Your task to perform on an android device: clear history in the chrome app Image 0: 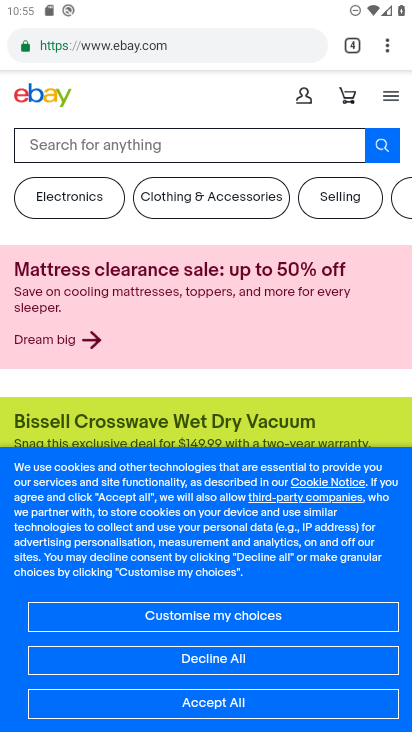
Step 0: press home button
Your task to perform on an android device: clear history in the chrome app Image 1: 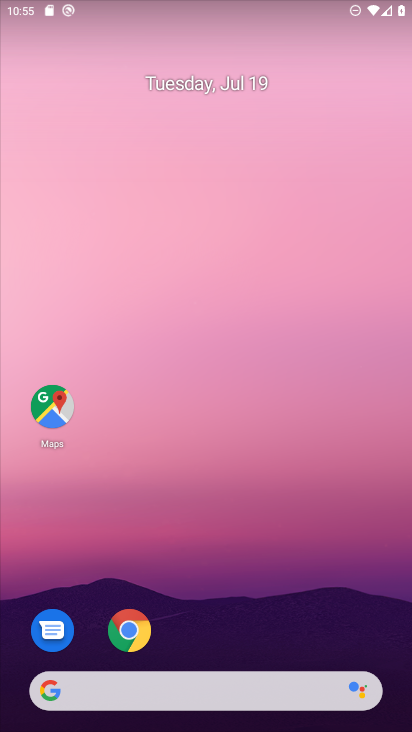
Step 1: click (137, 630)
Your task to perform on an android device: clear history in the chrome app Image 2: 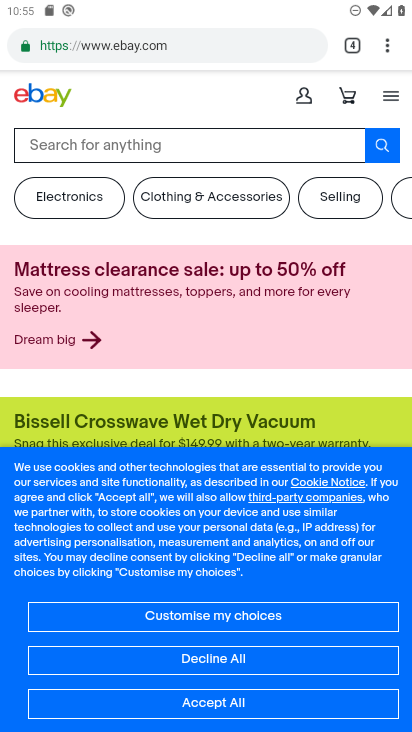
Step 2: click (384, 37)
Your task to perform on an android device: clear history in the chrome app Image 3: 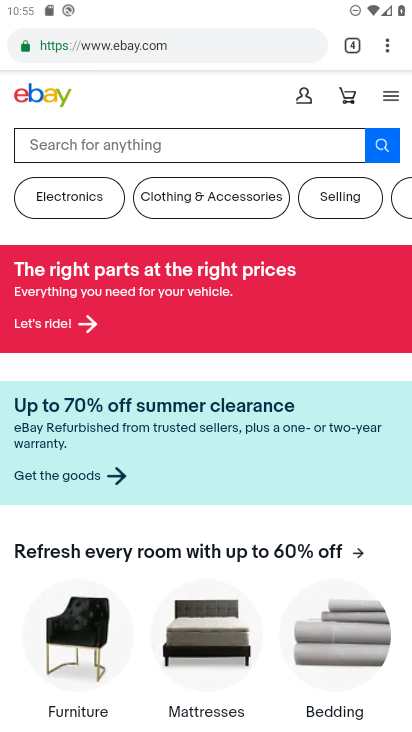
Step 3: drag from (389, 49) to (235, 254)
Your task to perform on an android device: clear history in the chrome app Image 4: 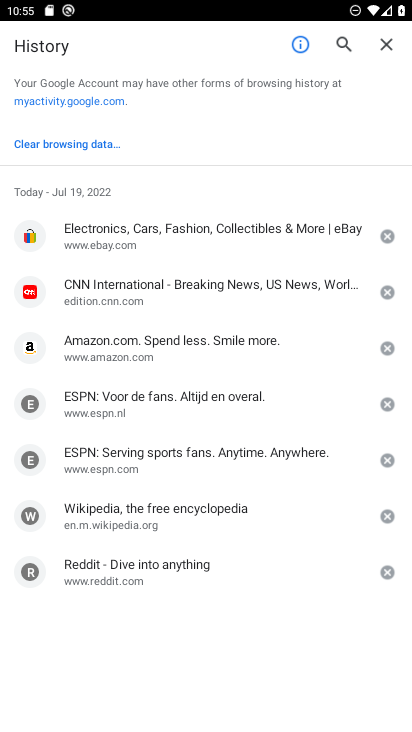
Step 4: click (49, 142)
Your task to perform on an android device: clear history in the chrome app Image 5: 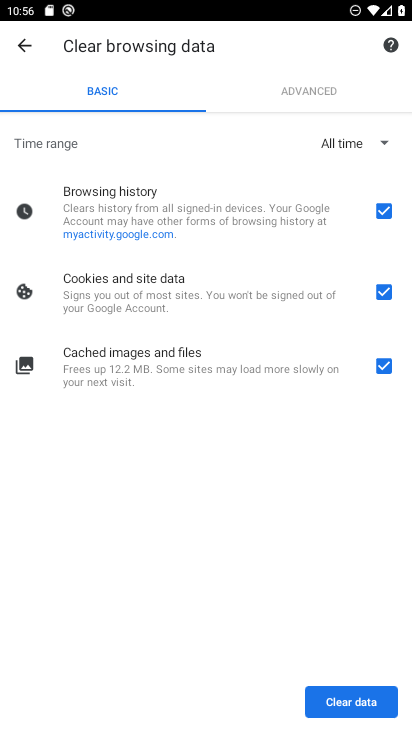
Step 5: click (363, 690)
Your task to perform on an android device: clear history in the chrome app Image 6: 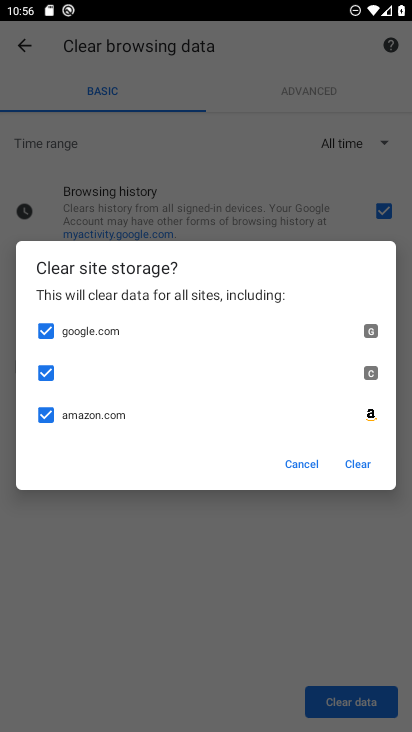
Step 6: click (365, 466)
Your task to perform on an android device: clear history in the chrome app Image 7: 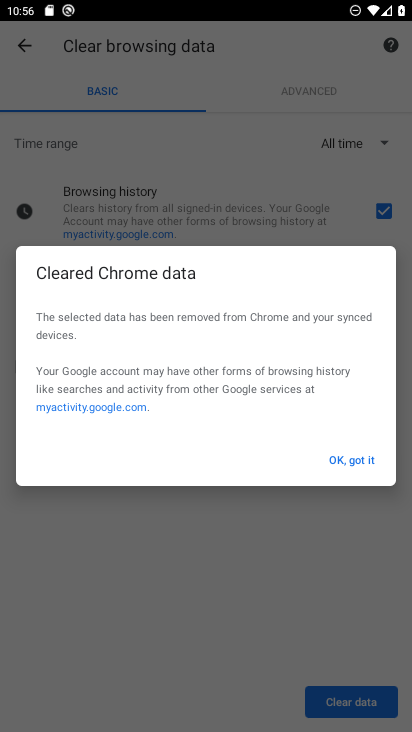
Step 7: click (345, 466)
Your task to perform on an android device: clear history in the chrome app Image 8: 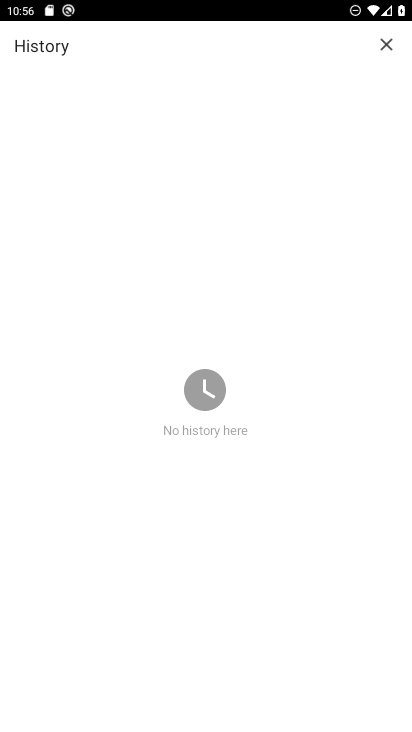
Step 8: task complete